Your task to perform on an android device: Open Chrome and go to settings Image 0: 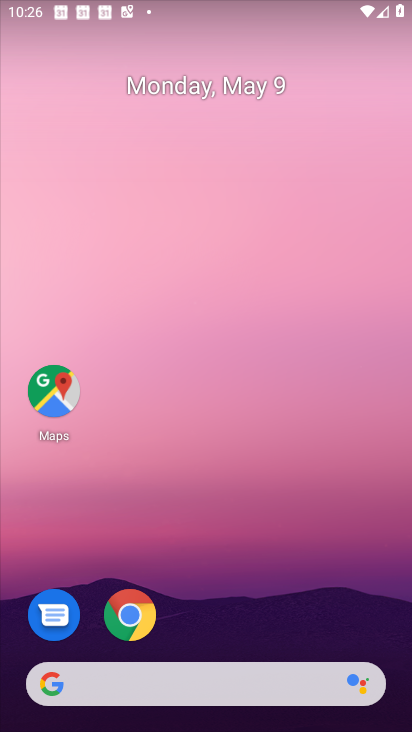
Step 0: drag from (284, 696) to (404, 351)
Your task to perform on an android device: Open Chrome and go to settings Image 1: 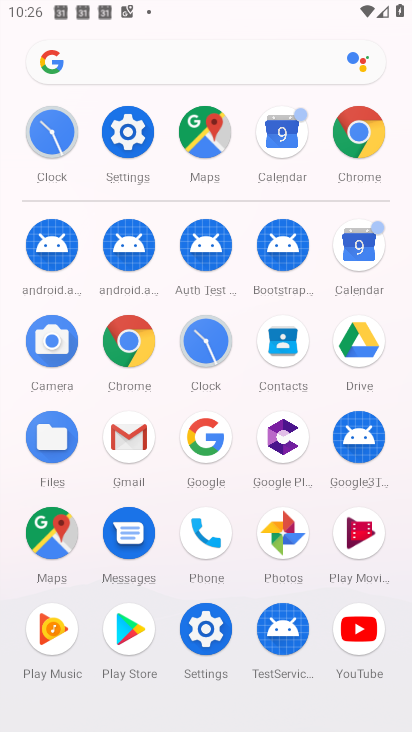
Step 1: click (363, 243)
Your task to perform on an android device: Open Chrome and go to settings Image 2: 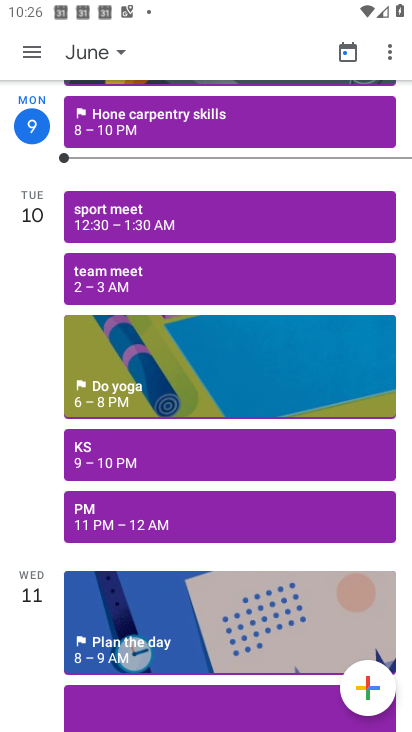
Step 2: press home button
Your task to perform on an android device: Open Chrome and go to settings Image 3: 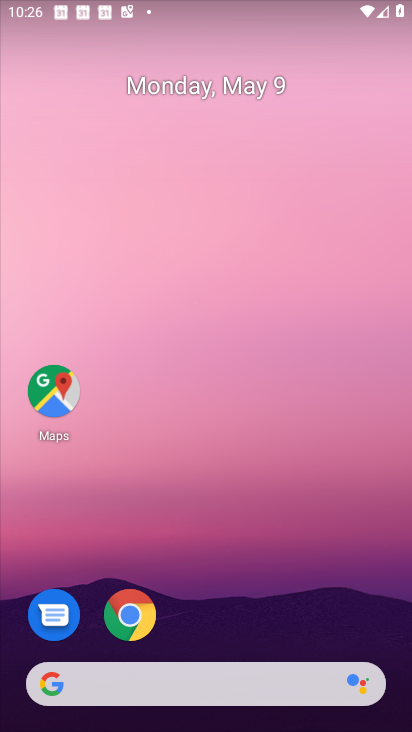
Step 3: drag from (296, 696) to (349, 242)
Your task to perform on an android device: Open Chrome and go to settings Image 4: 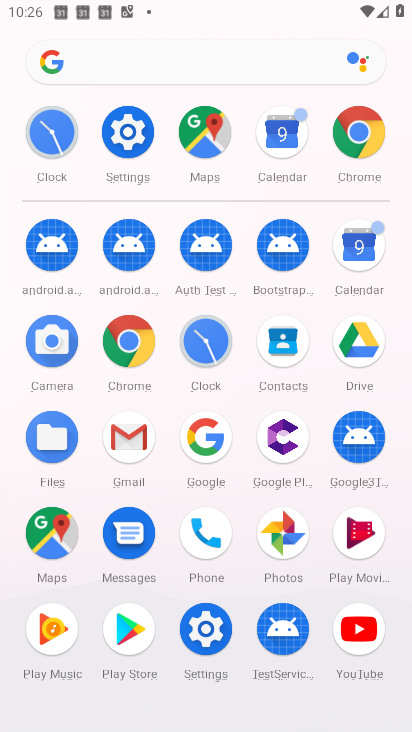
Step 4: click (372, 140)
Your task to perform on an android device: Open Chrome and go to settings Image 5: 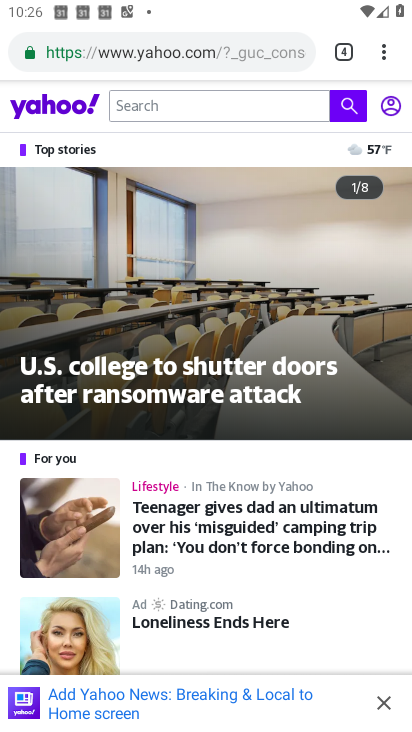
Step 5: click (377, 71)
Your task to perform on an android device: Open Chrome and go to settings Image 6: 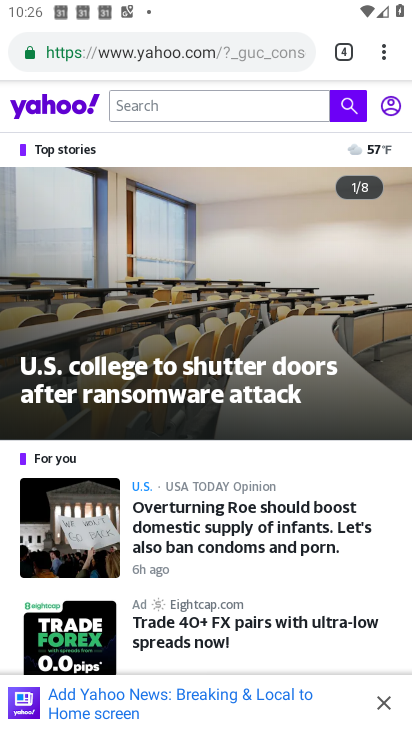
Step 6: click (389, 47)
Your task to perform on an android device: Open Chrome and go to settings Image 7: 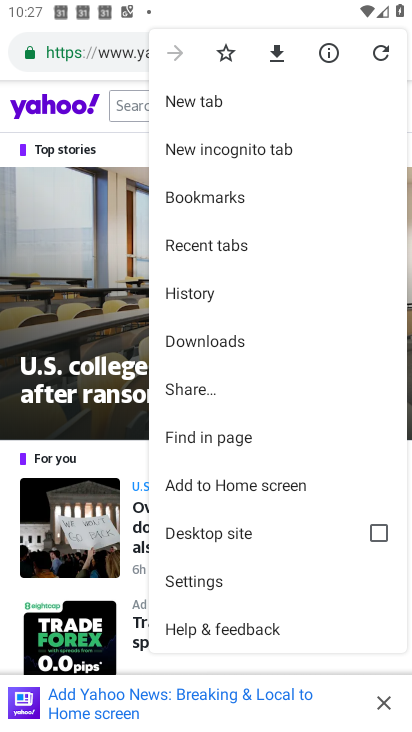
Step 7: click (220, 586)
Your task to perform on an android device: Open Chrome and go to settings Image 8: 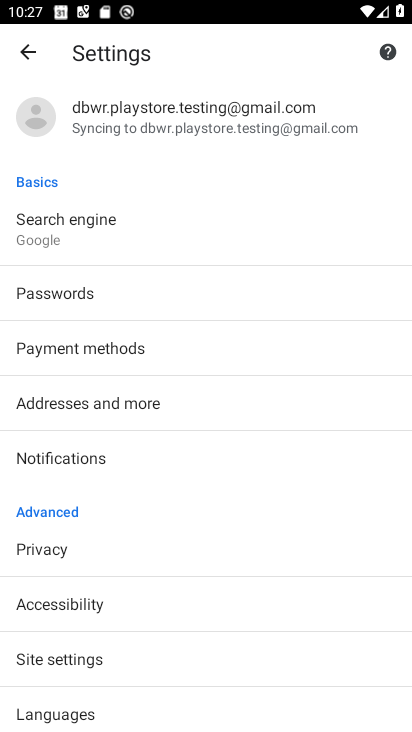
Step 8: task complete